Your task to perform on an android device: find photos in the google photos app Image 0: 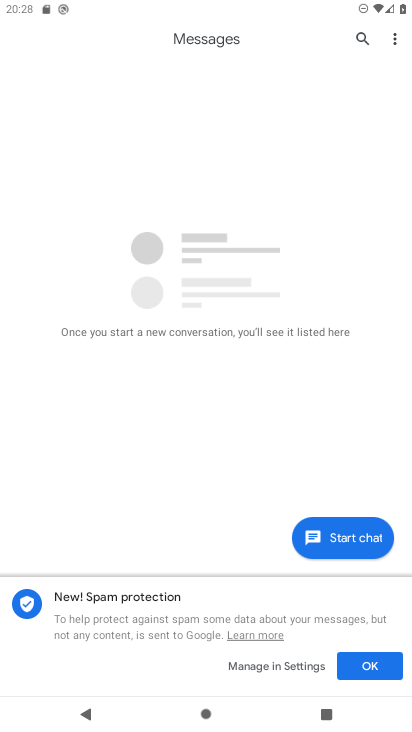
Step 0: press home button
Your task to perform on an android device: find photos in the google photos app Image 1: 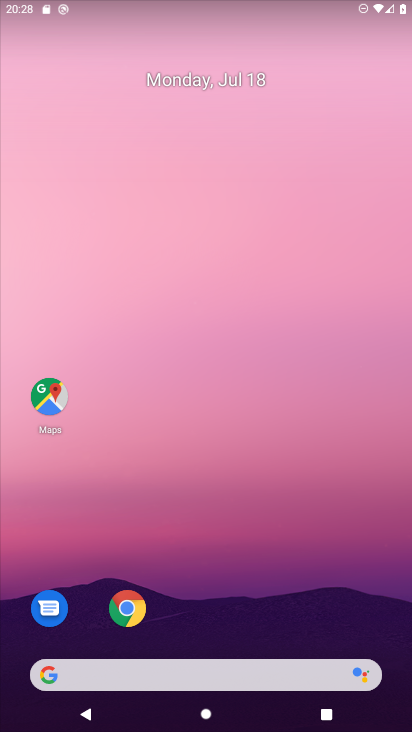
Step 1: drag from (188, 623) to (300, 110)
Your task to perform on an android device: find photos in the google photos app Image 2: 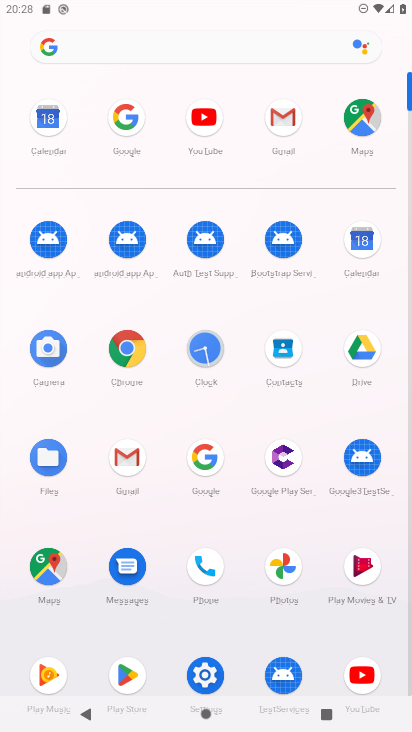
Step 2: click (291, 571)
Your task to perform on an android device: find photos in the google photos app Image 3: 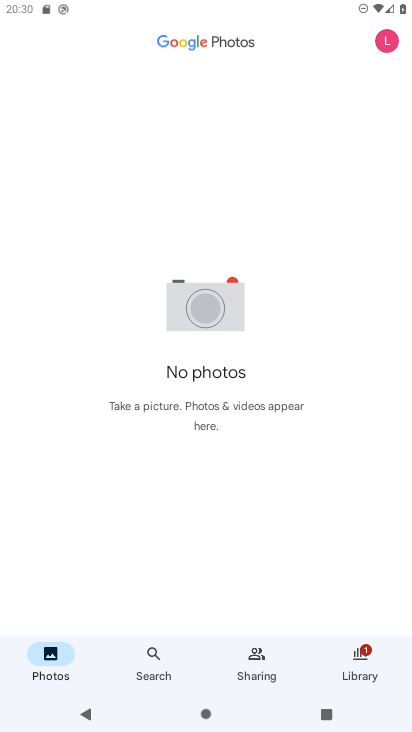
Step 3: task complete